Your task to perform on an android device: Open display settings Image 0: 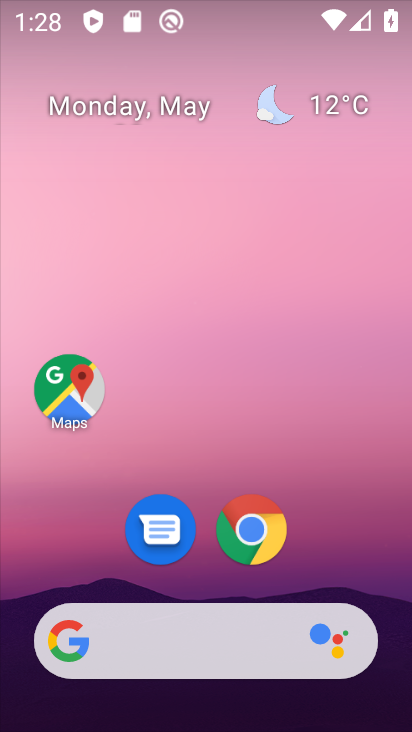
Step 0: drag from (389, 625) to (303, 90)
Your task to perform on an android device: Open display settings Image 1: 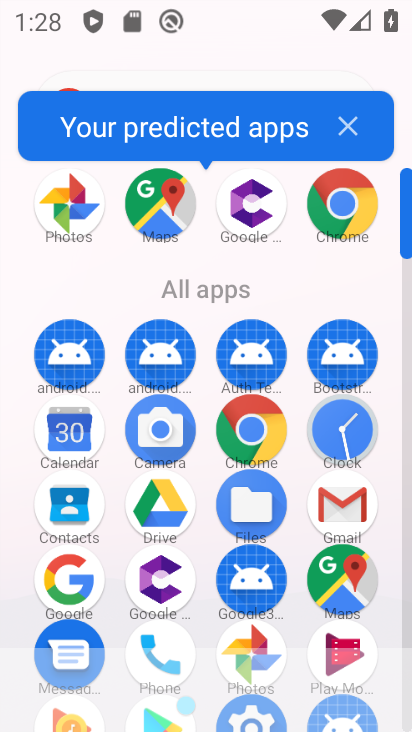
Step 1: click (409, 636)
Your task to perform on an android device: Open display settings Image 2: 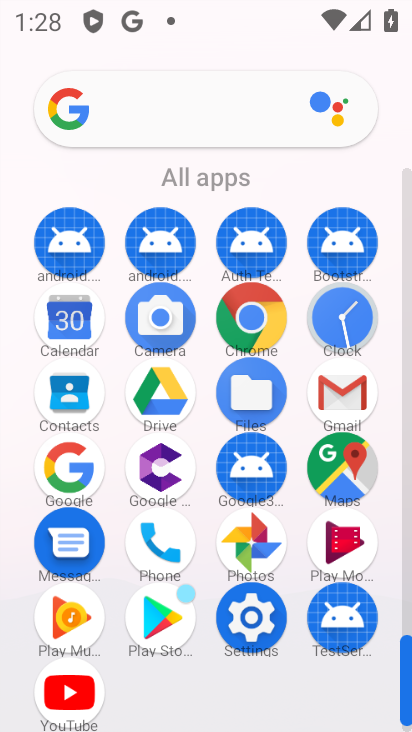
Step 2: click (256, 623)
Your task to perform on an android device: Open display settings Image 3: 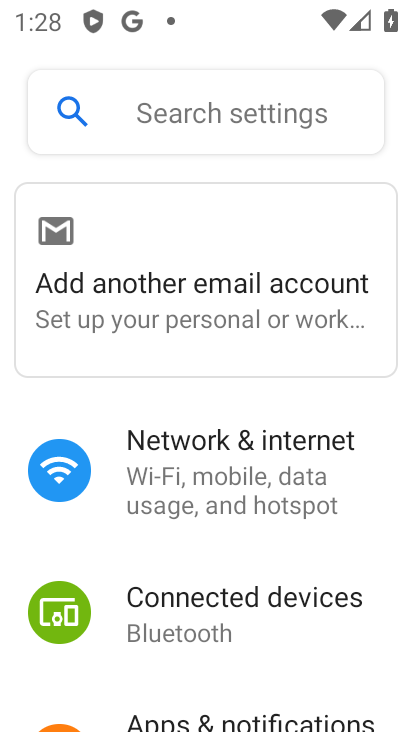
Step 3: drag from (320, 628) to (269, 81)
Your task to perform on an android device: Open display settings Image 4: 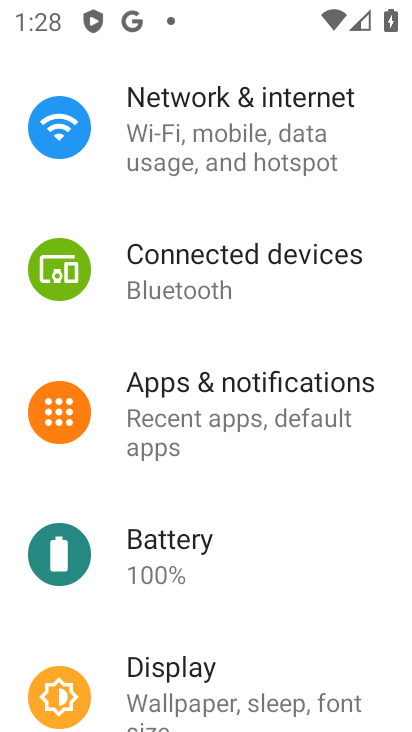
Step 4: drag from (264, 647) to (281, 251)
Your task to perform on an android device: Open display settings Image 5: 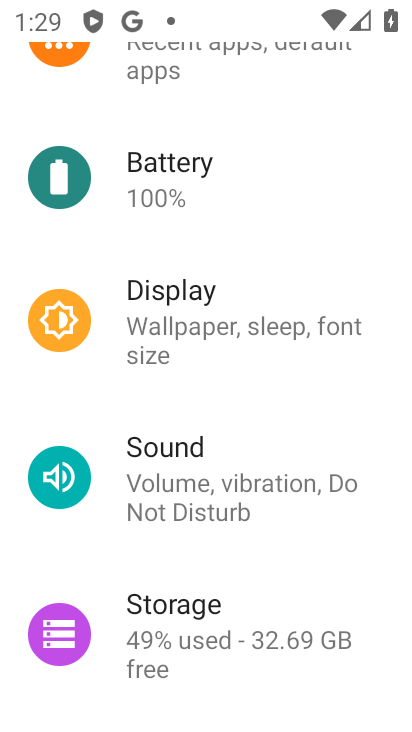
Step 5: click (194, 322)
Your task to perform on an android device: Open display settings Image 6: 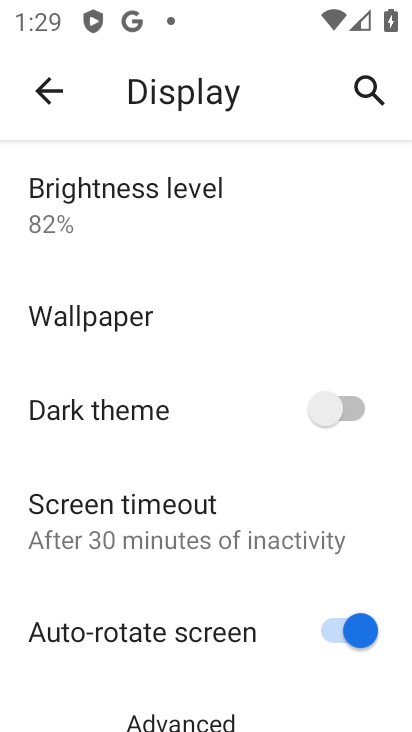
Step 6: drag from (296, 609) to (257, 213)
Your task to perform on an android device: Open display settings Image 7: 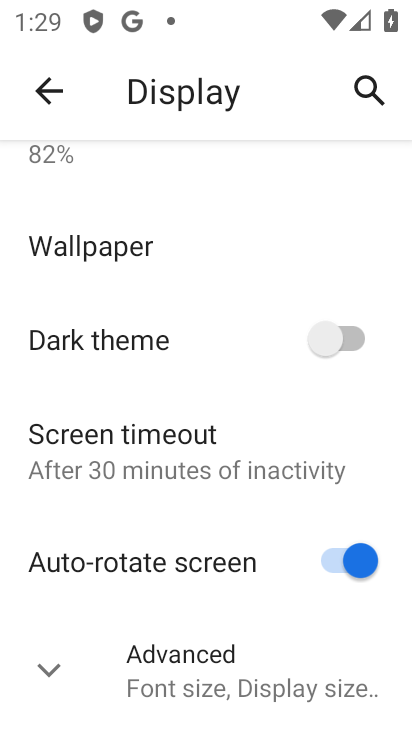
Step 7: click (47, 666)
Your task to perform on an android device: Open display settings Image 8: 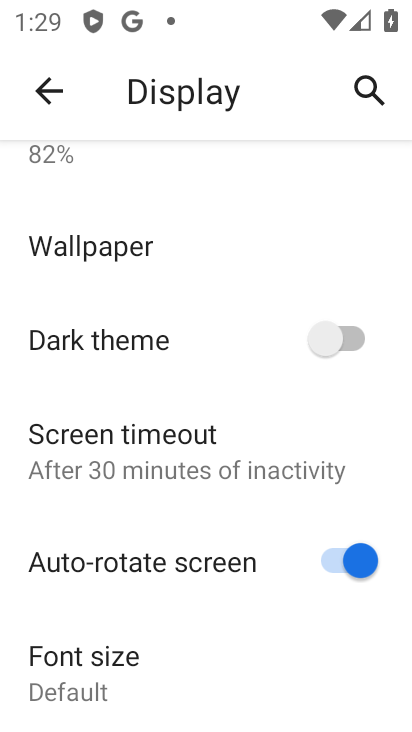
Step 8: task complete